Your task to perform on an android device: Go to Amazon Image 0: 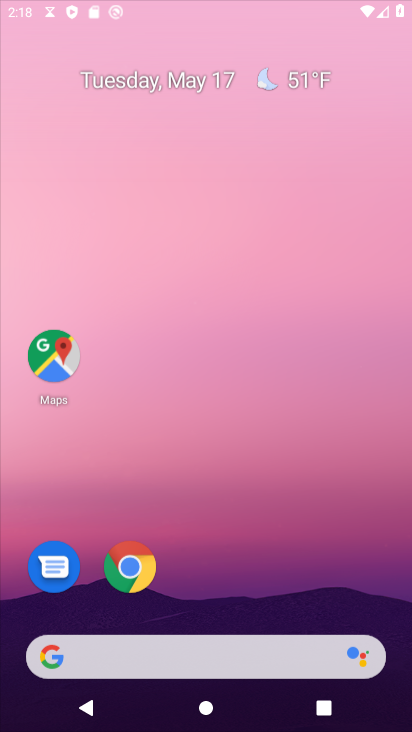
Step 0: drag from (212, 570) to (294, 176)
Your task to perform on an android device: Go to Amazon Image 1: 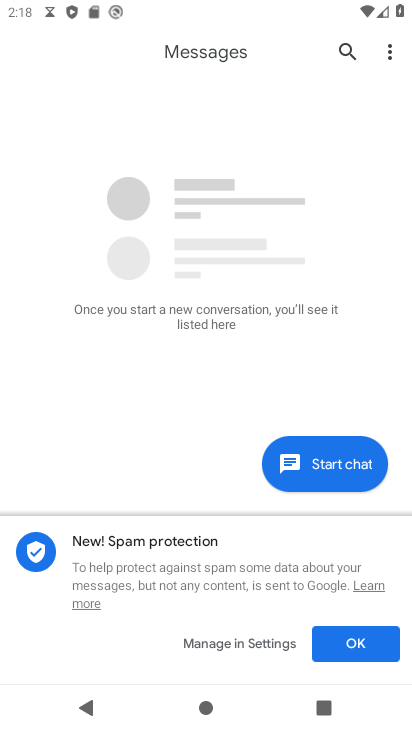
Step 1: press home button
Your task to perform on an android device: Go to Amazon Image 2: 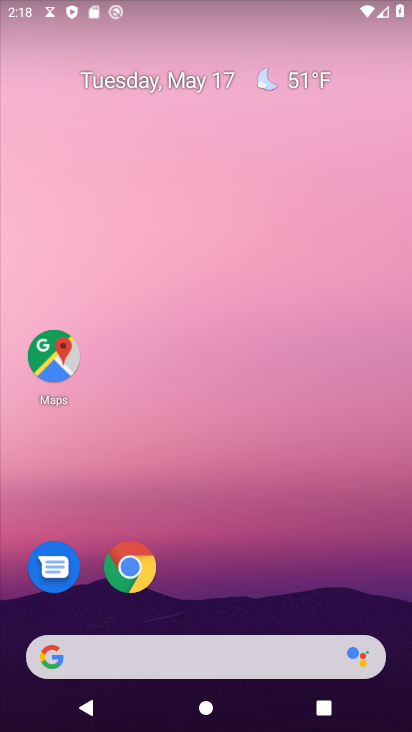
Step 2: click (141, 563)
Your task to perform on an android device: Go to Amazon Image 3: 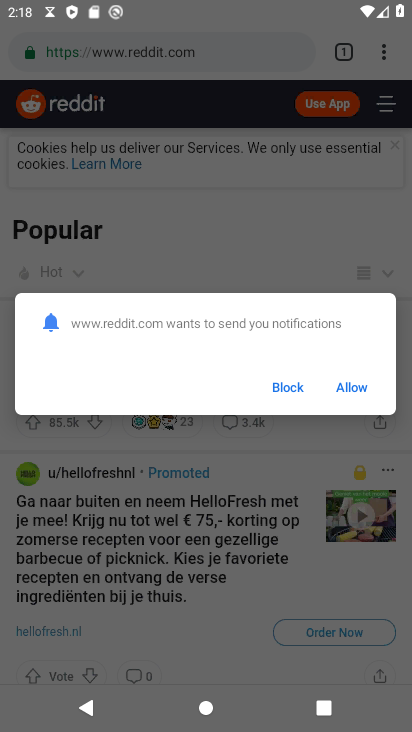
Step 3: click (351, 392)
Your task to perform on an android device: Go to Amazon Image 4: 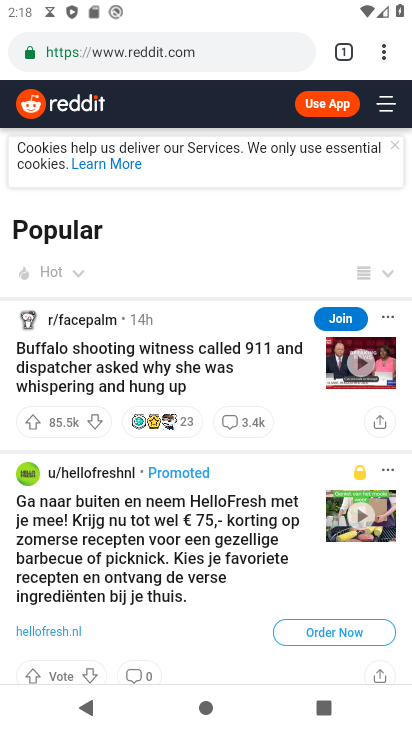
Step 4: click (178, 62)
Your task to perform on an android device: Go to Amazon Image 5: 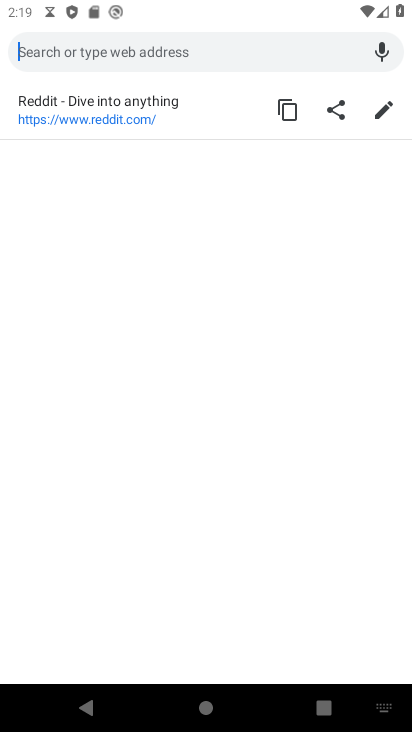
Step 5: type "amazon"
Your task to perform on an android device: Go to Amazon Image 6: 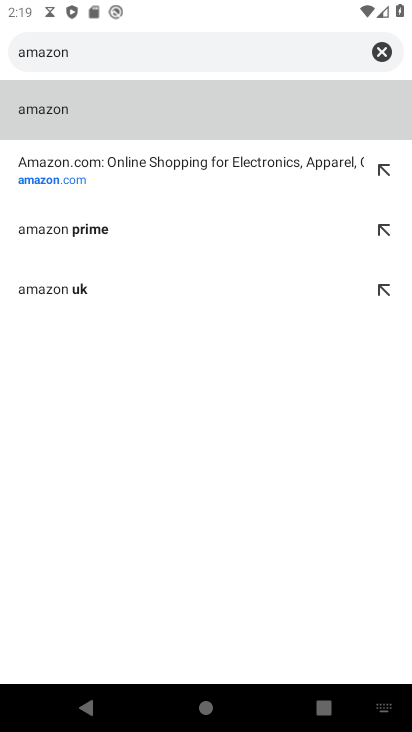
Step 6: click (127, 164)
Your task to perform on an android device: Go to Amazon Image 7: 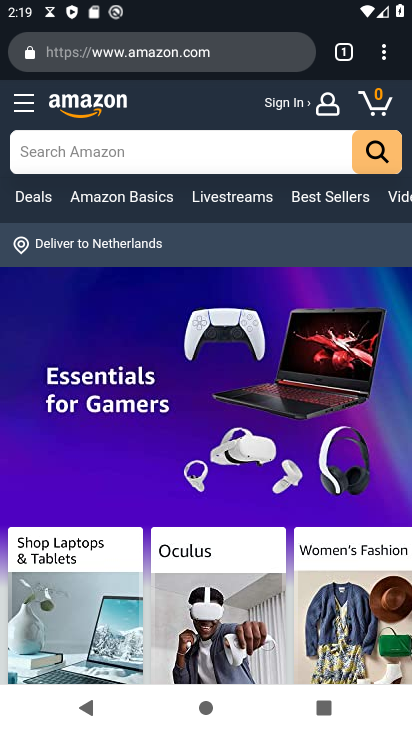
Step 7: task complete